Your task to perform on an android device: Go to Yahoo.com Image 0: 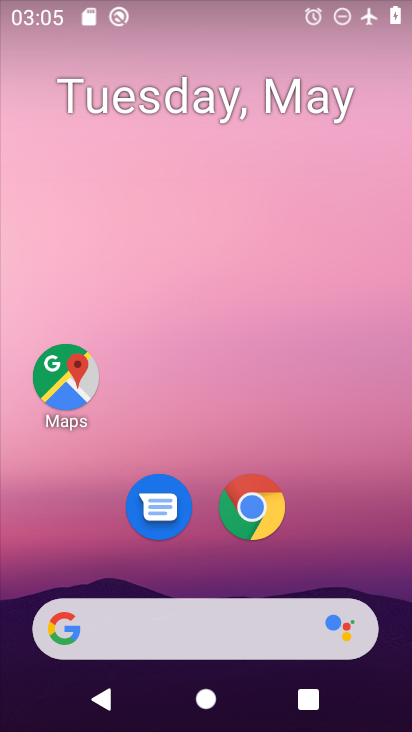
Step 0: click (244, 492)
Your task to perform on an android device: Go to Yahoo.com Image 1: 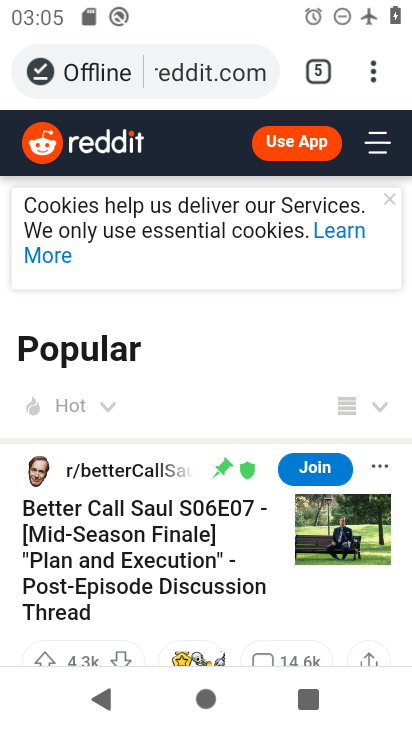
Step 1: click (309, 69)
Your task to perform on an android device: Go to Yahoo.com Image 2: 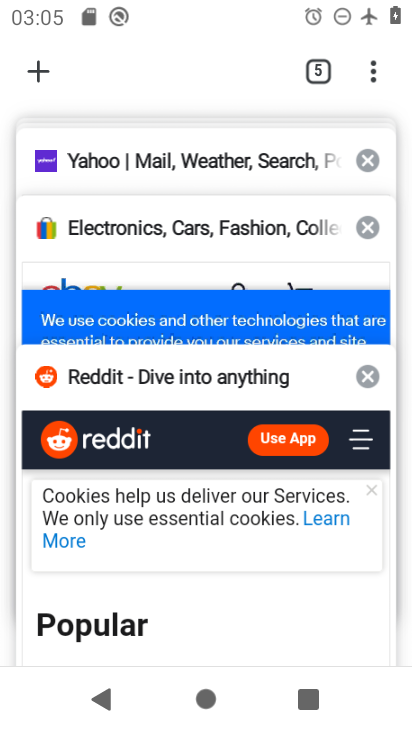
Step 2: click (203, 157)
Your task to perform on an android device: Go to Yahoo.com Image 3: 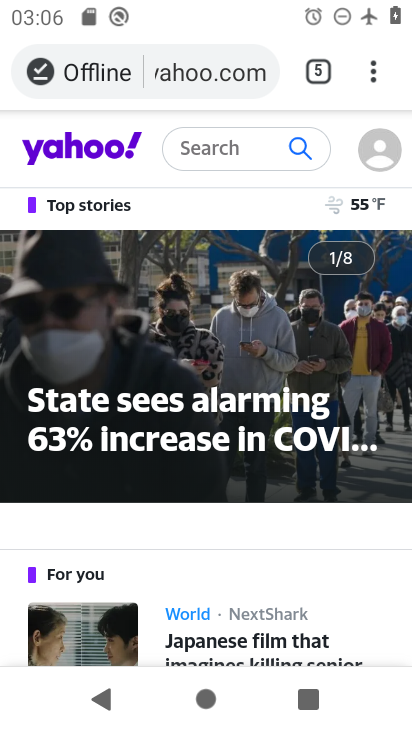
Step 3: task complete